Your task to perform on an android device: star an email in the gmail app Image 0: 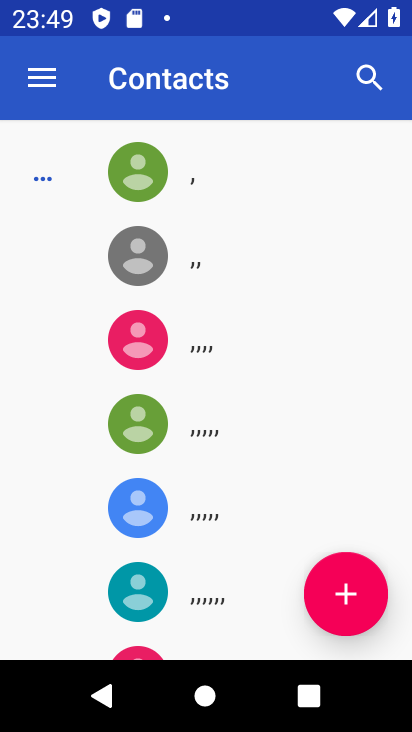
Step 0: press home button
Your task to perform on an android device: star an email in the gmail app Image 1: 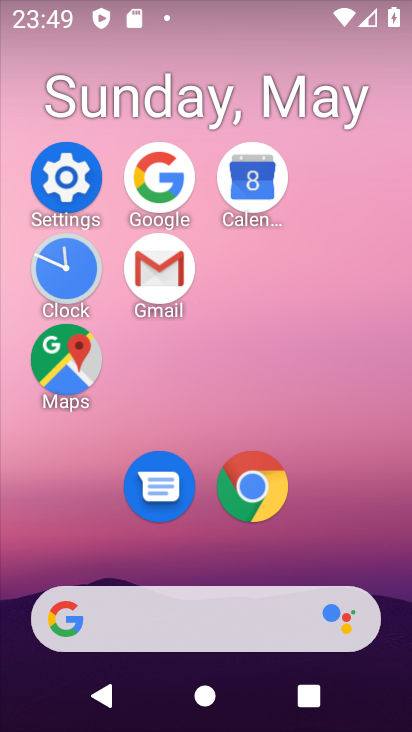
Step 1: click (130, 261)
Your task to perform on an android device: star an email in the gmail app Image 2: 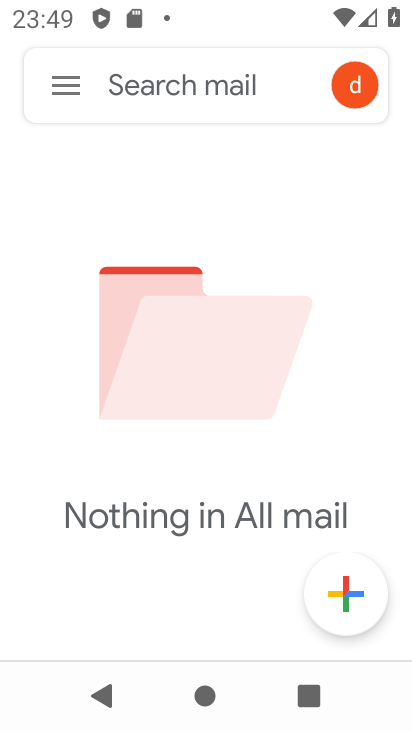
Step 2: click (59, 86)
Your task to perform on an android device: star an email in the gmail app Image 3: 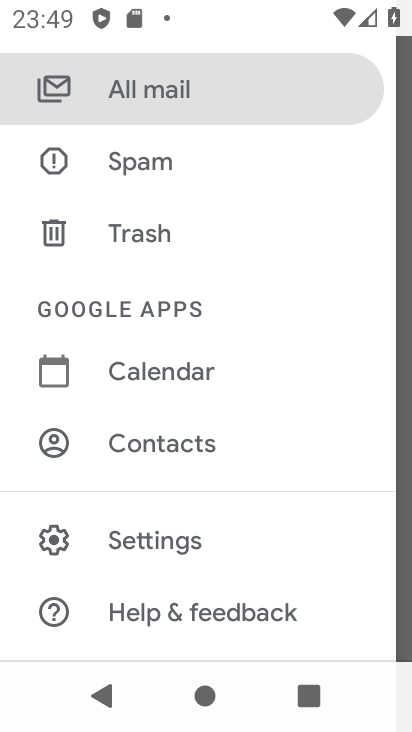
Step 3: drag from (254, 550) to (241, 186)
Your task to perform on an android device: star an email in the gmail app Image 4: 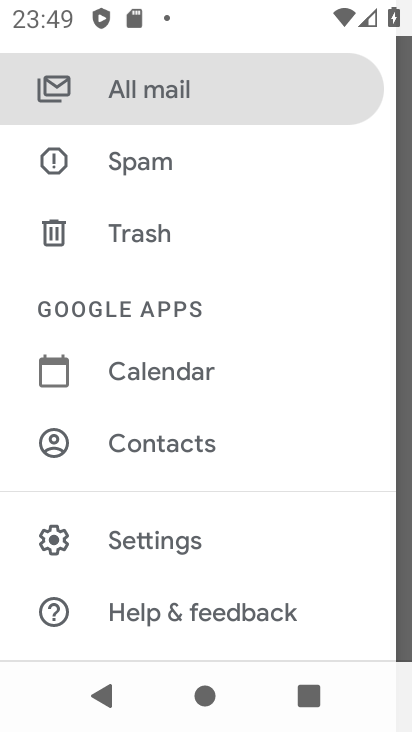
Step 4: click (240, 88)
Your task to perform on an android device: star an email in the gmail app Image 5: 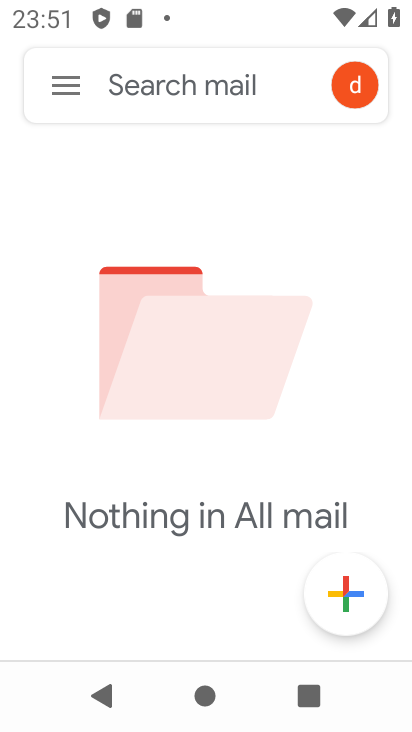
Step 5: task complete